Your task to perform on an android device: Open Google Chrome and open the bookmarks view Image 0: 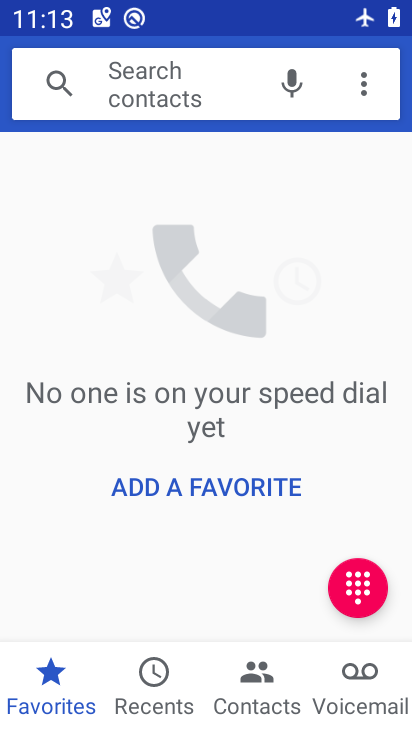
Step 0: press home button
Your task to perform on an android device: Open Google Chrome and open the bookmarks view Image 1: 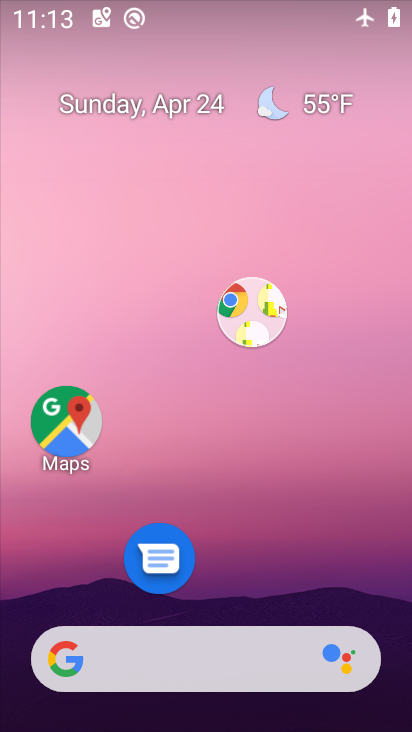
Step 1: drag from (388, 690) to (177, 0)
Your task to perform on an android device: Open Google Chrome and open the bookmarks view Image 2: 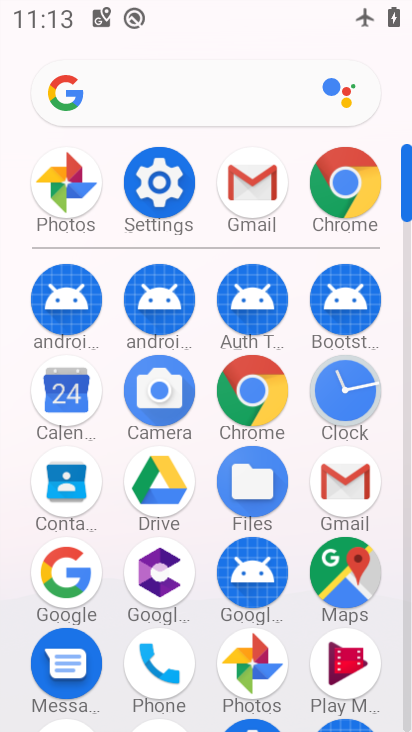
Step 2: click (332, 180)
Your task to perform on an android device: Open Google Chrome and open the bookmarks view Image 3: 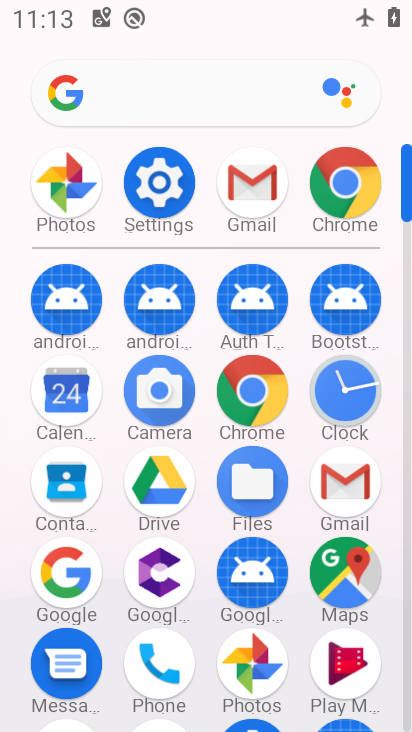
Step 3: click (332, 180)
Your task to perform on an android device: Open Google Chrome and open the bookmarks view Image 4: 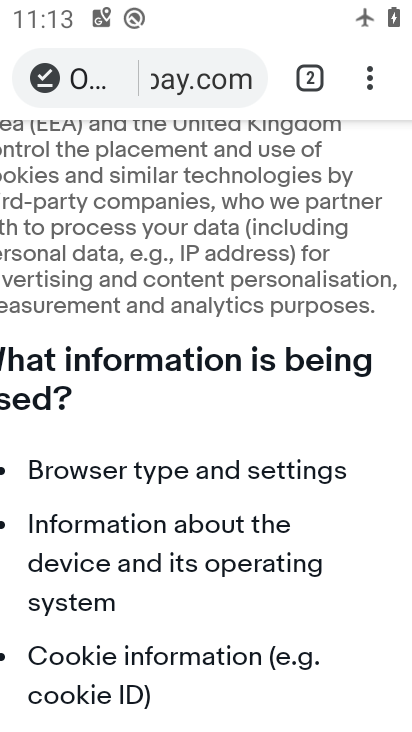
Step 4: drag from (371, 70) to (74, 287)
Your task to perform on an android device: Open Google Chrome and open the bookmarks view Image 5: 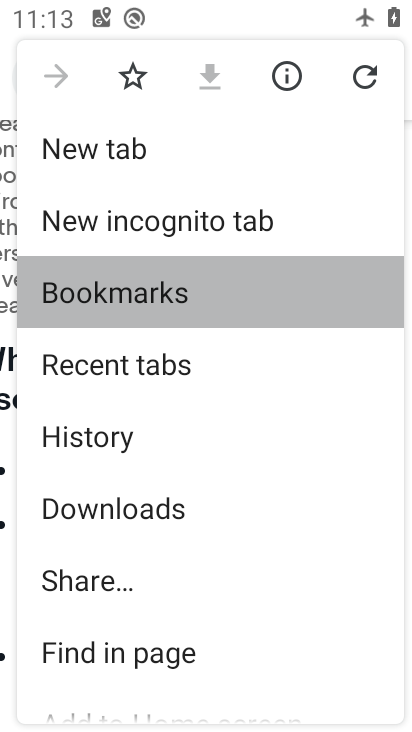
Step 5: click (74, 287)
Your task to perform on an android device: Open Google Chrome and open the bookmarks view Image 6: 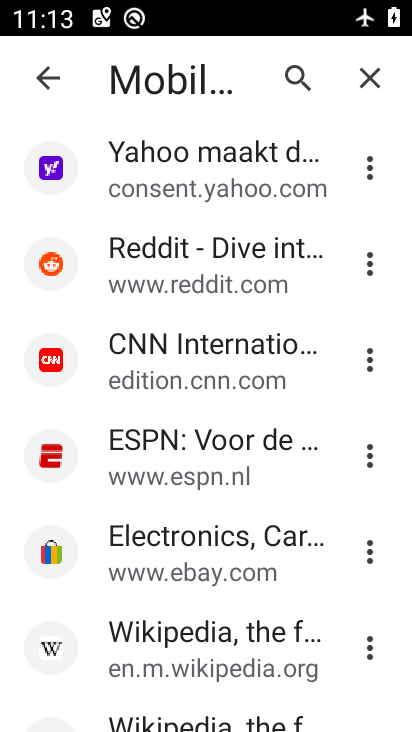
Step 6: task complete